Your task to perform on an android device: turn on the 12-hour format for clock Image 0: 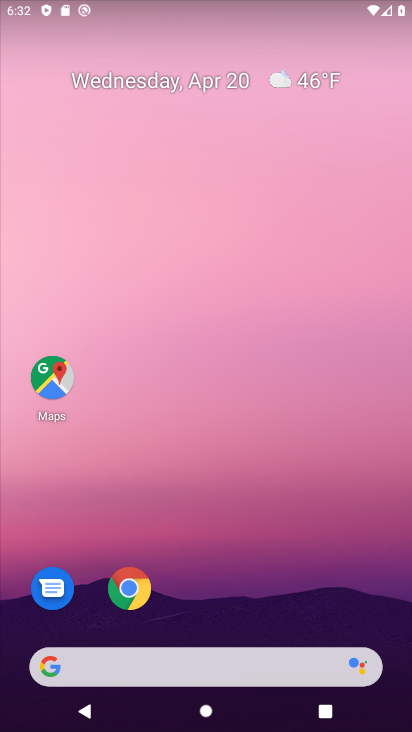
Step 0: drag from (328, 621) to (325, 0)
Your task to perform on an android device: turn on the 12-hour format for clock Image 1: 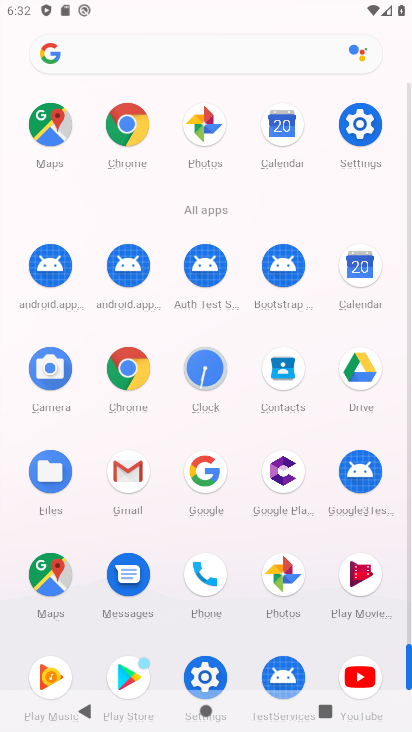
Step 1: click (201, 671)
Your task to perform on an android device: turn on the 12-hour format for clock Image 2: 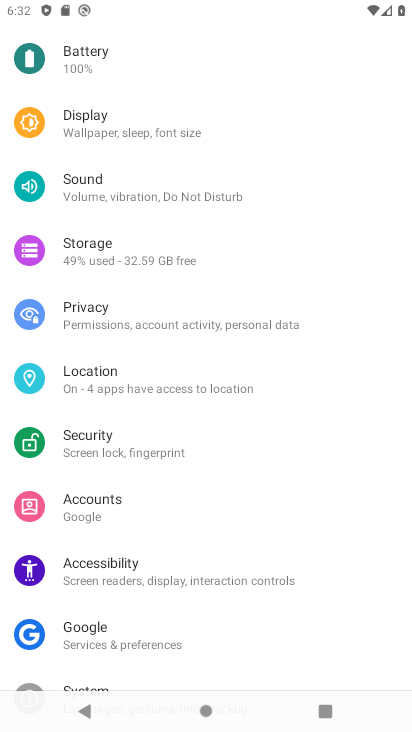
Step 2: press home button
Your task to perform on an android device: turn on the 12-hour format for clock Image 3: 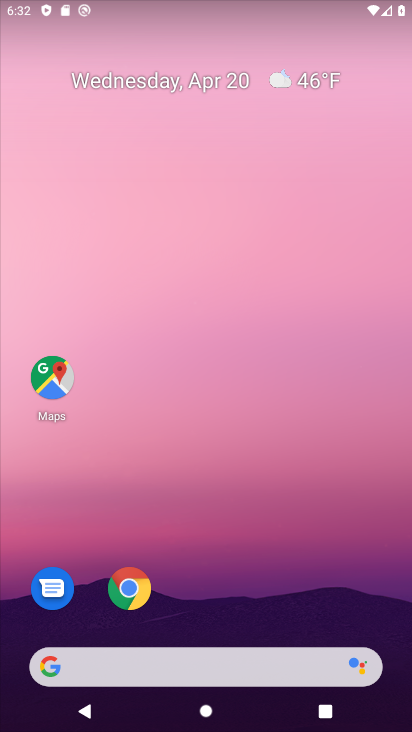
Step 3: drag from (386, 589) to (400, 58)
Your task to perform on an android device: turn on the 12-hour format for clock Image 4: 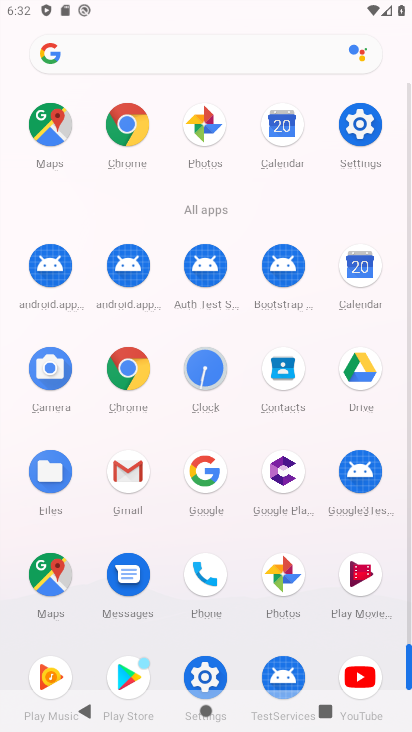
Step 4: click (215, 363)
Your task to perform on an android device: turn on the 12-hour format for clock Image 5: 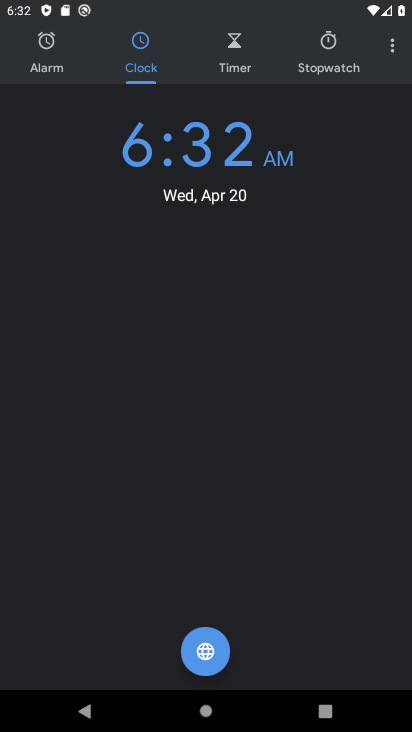
Step 5: click (385, 45)
Your task to perform on an android device: turn on the 12-hour format for clock Image 6: 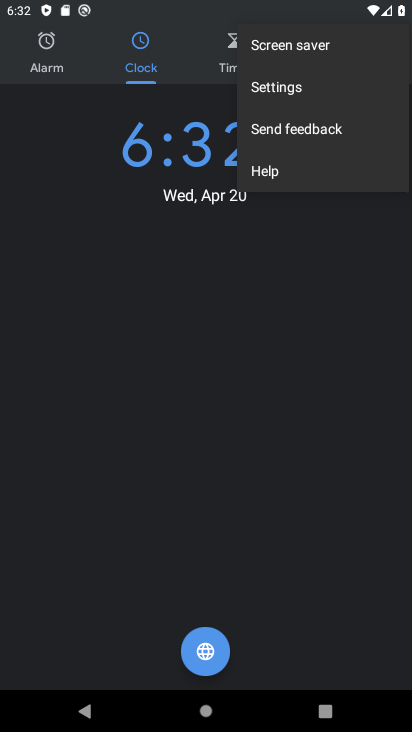
Step 6: click (323, 96)
Your task to perform on an android device: turn on the 12-hour format for clock Image 7: 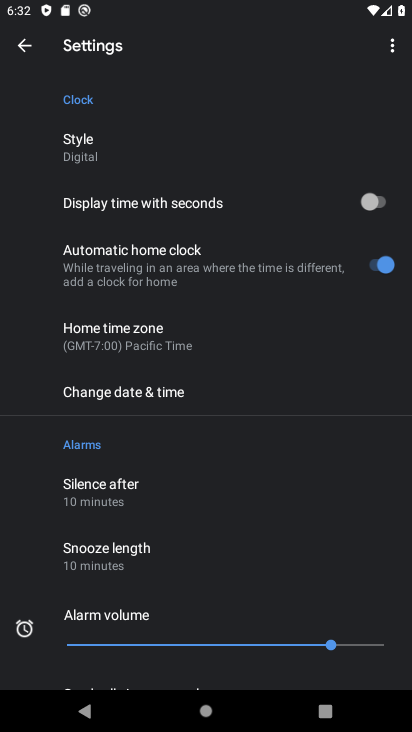
Step 7: drag from (255, 526) to (293, 112)
Your task to perform on an android device: turn on the 12-hour format for clock Image 8: 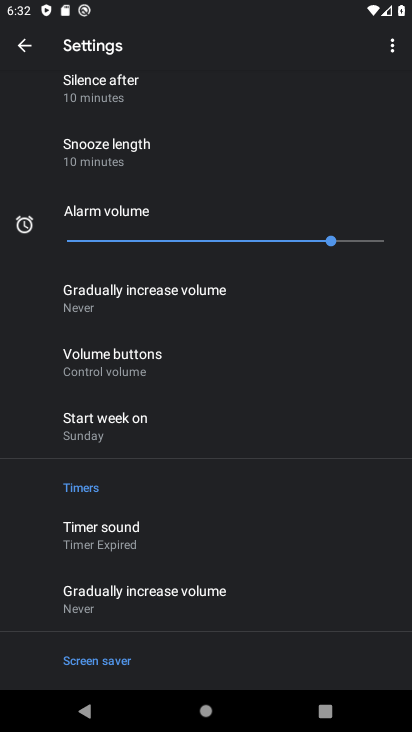
Step 8: drag from (171, 661) to (166, 96)
Your task to perform on an android device: turn on the 12-hour format for clock Image 9: 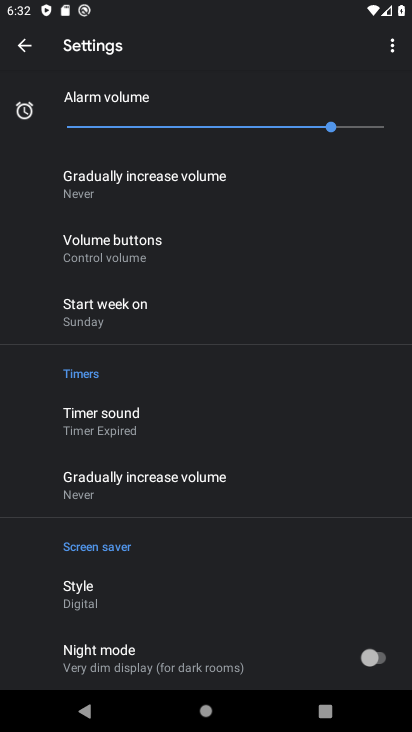
Step 9: drag from (169, 643) to (158, 182)
Your task to perform on an android device: turn on the 12-hour format for clock Image 10: 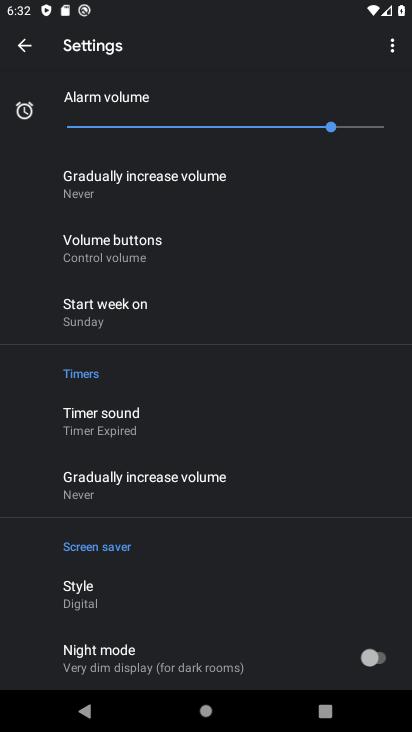
Step 10: drag from (234, 201) to (228, 572)
Your task to perform on an android device: turn on the 12-hour format for clock Image 11: 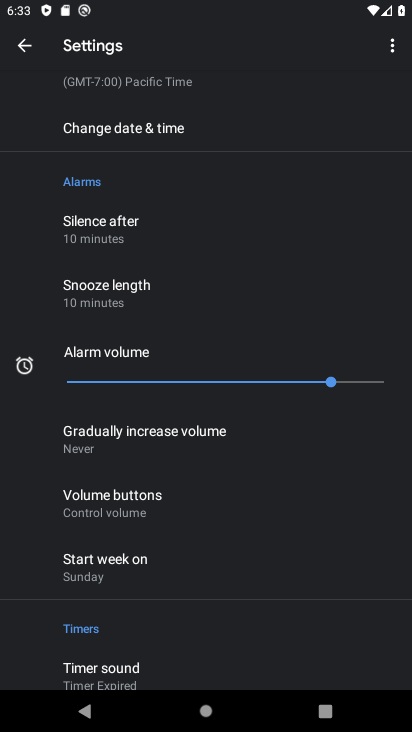
Step 11: click (137, 126)
Your task to perform on an android device: turn on the 12-hour format for clock Image 12: 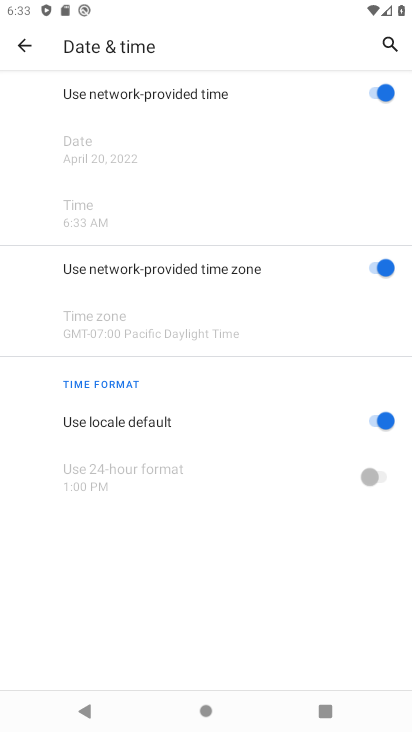
Step 12: click (378, 423)
Your task to perform on an android device: turn on the 12-hour format for clock Image 13: 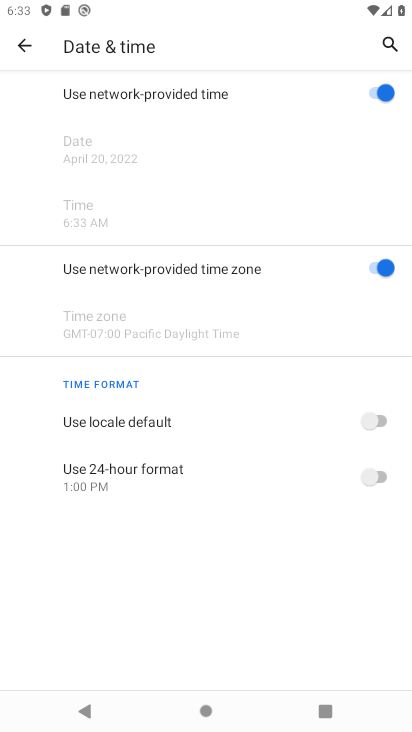
Step 13: click (361, 477)
Your task to perform on an android device: turn on the 12-hour format for clock Image 14: 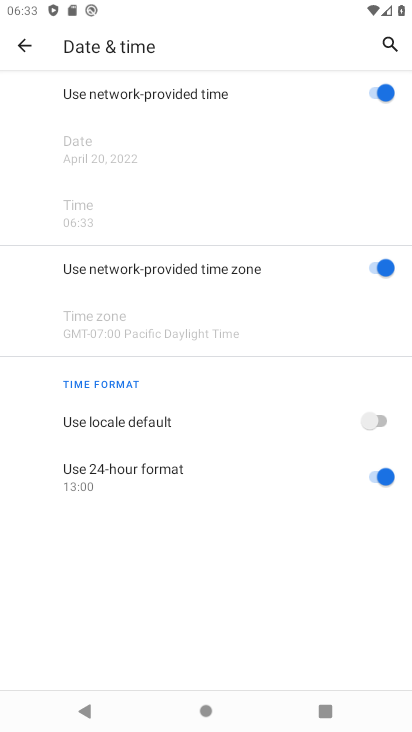
Step 14: task complete